Your task to perform on an android device: Open accessibility settings Image 0: 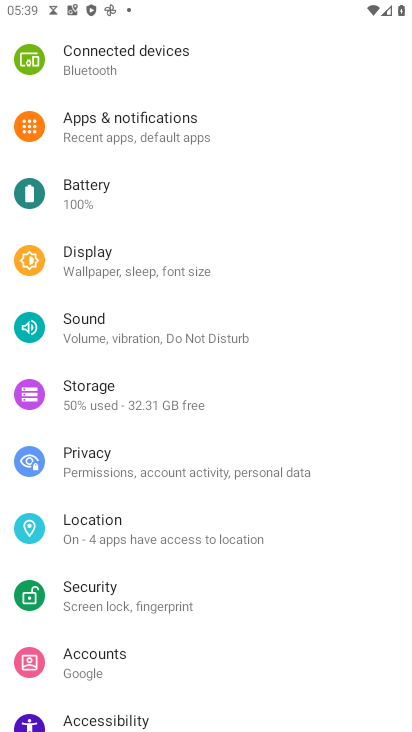
Step 0: click (150, 718)
Your task to perform on an android device: Open accessibility settings Image 1: 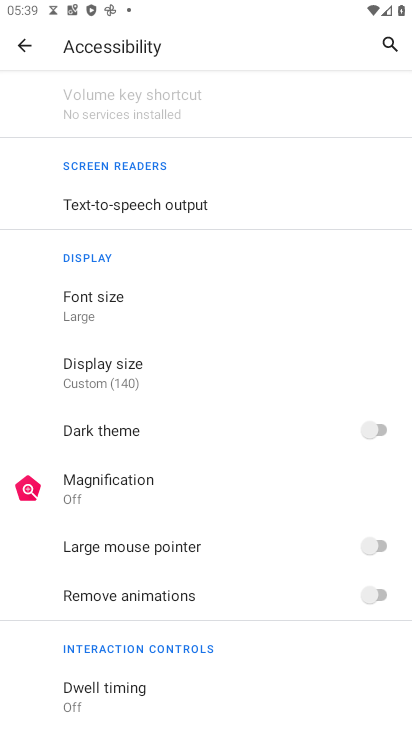
Step 1: task complete